Your task to perform on an android device: Go to Android settings Image 0: 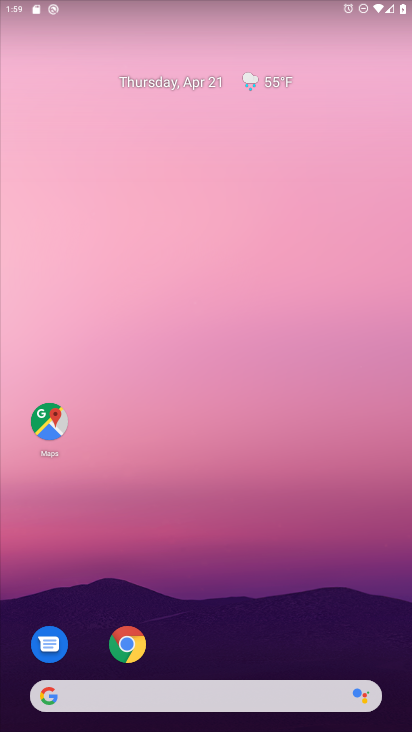
Step 0: drag from (297, 622) to (228, 260)
Your task to perform on an android device: Go to Android settings Image 1: 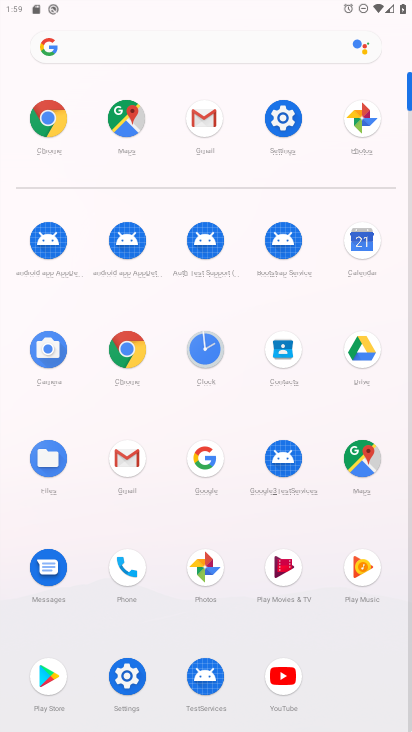
Step 1: click (291, 129)
Your task to perform on an android device: Go to Android settings Image 2: 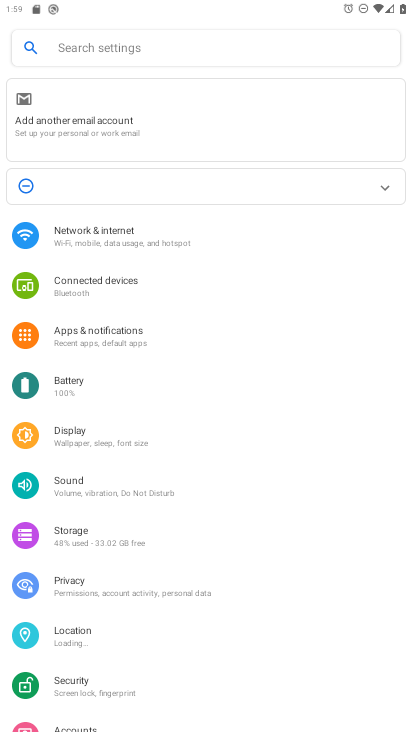
Step 2: task complete